Your task to perform on an android device: delete the emails in spam in the gmail app Image 0: 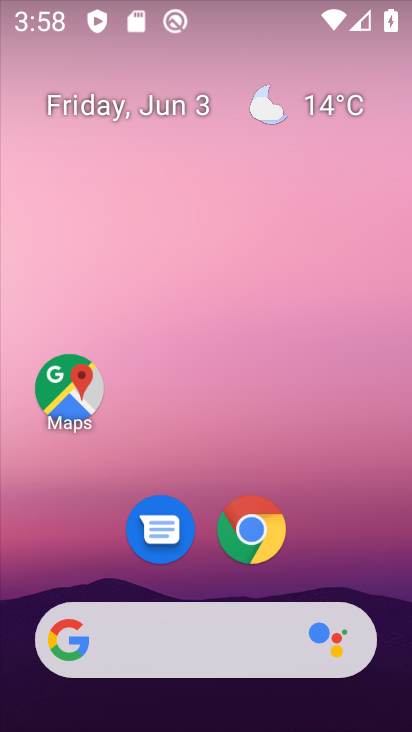
Step 0: click (378, 22)
Your task to perform on an android device: delete the emails in spam in the gmail app Image 1: 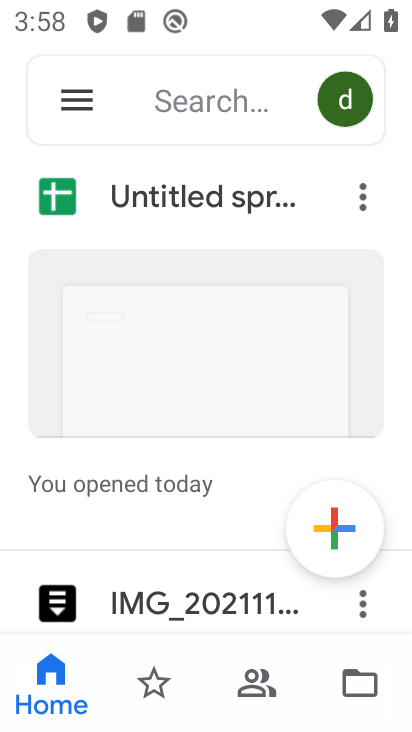
Step 1: press home button
Your task to perform on an android device: delete the emails in spam in the gmail app Image 2: 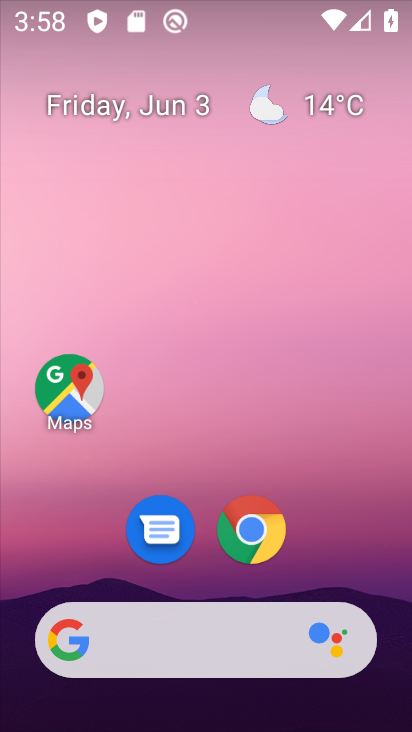
Step 2: drag from (338, 491) to (352, 3)
Your task to perform on an android device: delete the emails in spam in the gmail app Image 3: 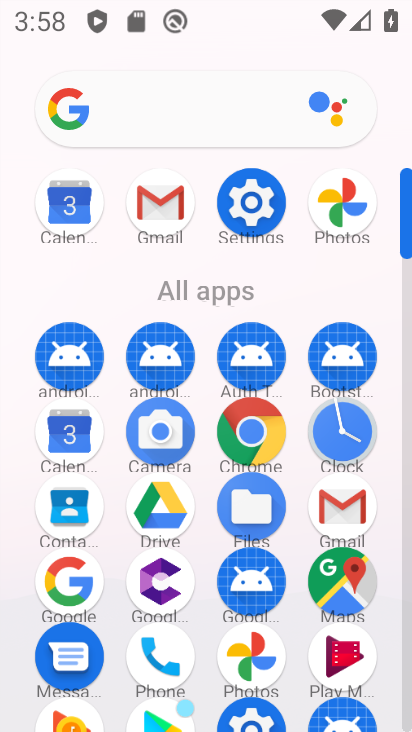
Step 3: click (177, 210)
Your task to perform on an android device: delete the emails in spam in the gmail app Image 4: 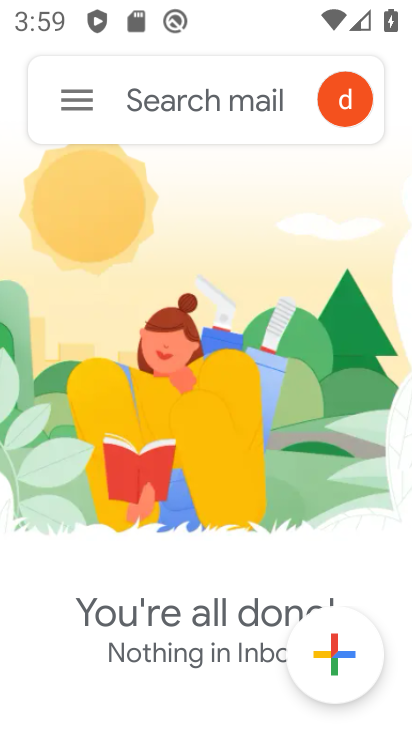
Step 4: click (75, 97)
Your task to perform on an android device: delete the emails in spam in the gmail app Image 5: 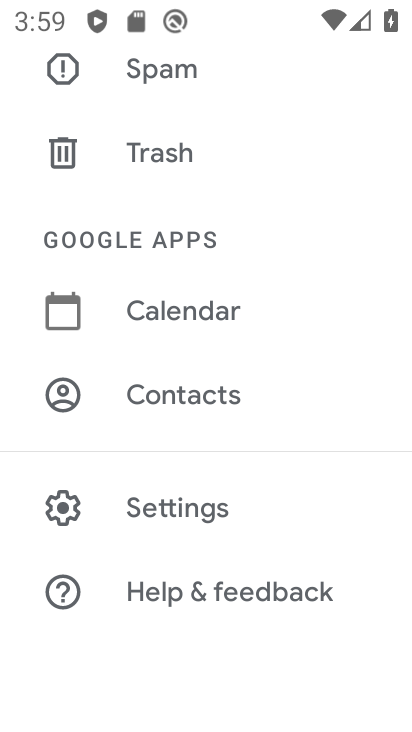
Step 5: click (140, 74)
Your task to perform on an android device: delete the emails in spam in the gmail app Image 6: 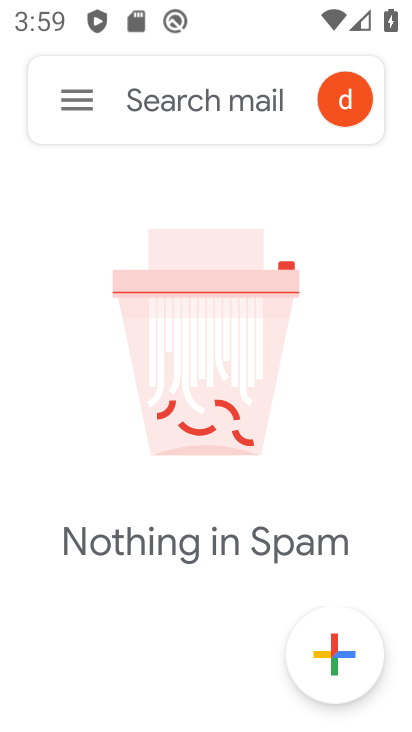
Step 6: task complete